Your task to perform on an android device: turn off improve location accuracy Image 0: 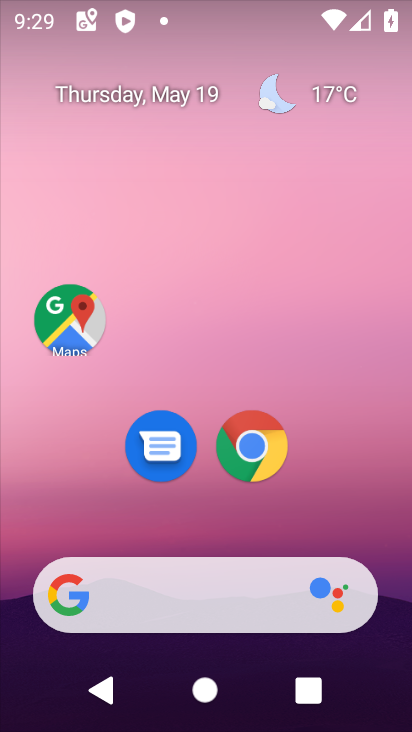
Step 0: drag from (207, 528) to (203, 15)
Your task to perform on an android device: turn off improve location accuracy Image 1: 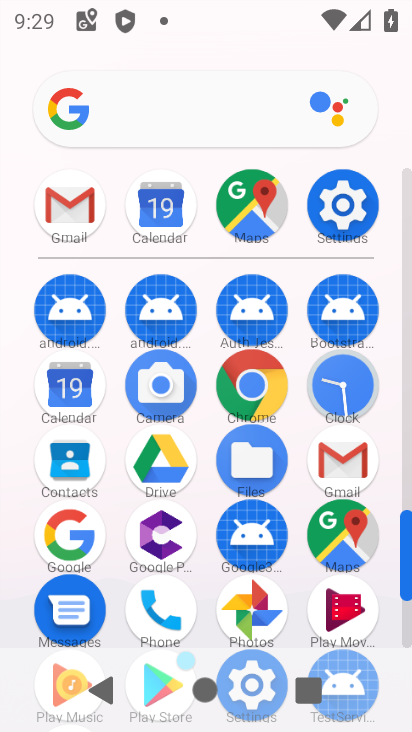
Step 1: click (347, 219)
Your task to perform on an android device: turn off improve location accuracy Image 2: 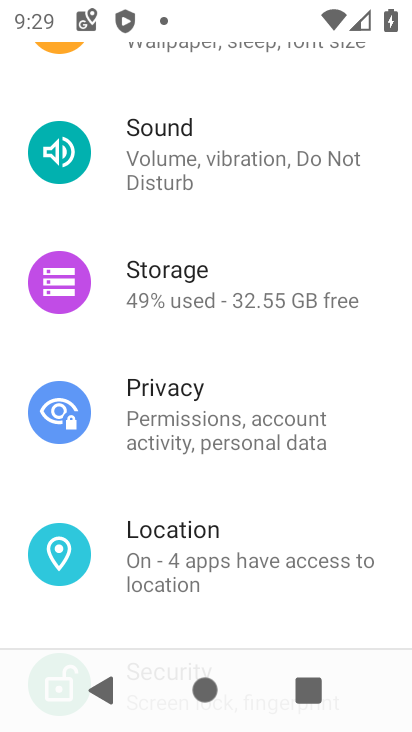
Step 2: click (186, 558)
Your task to perform on an android device: turn off improve location accuracy Image 3: 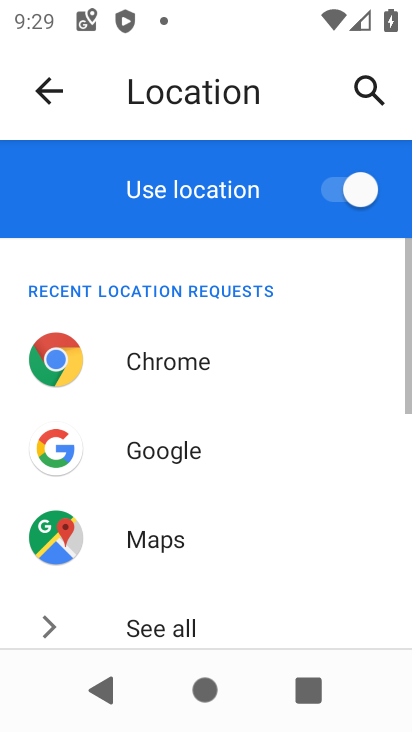
Step 3: click (313, 183)
Your task to perform on an android device: turn off improve location accuracy Image 4: 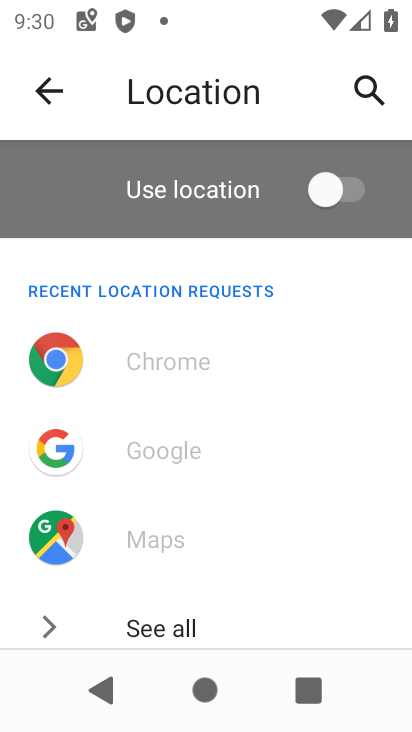
Step 4: task complete